Your task to perform on an android device: Go to internet settings Image 0: 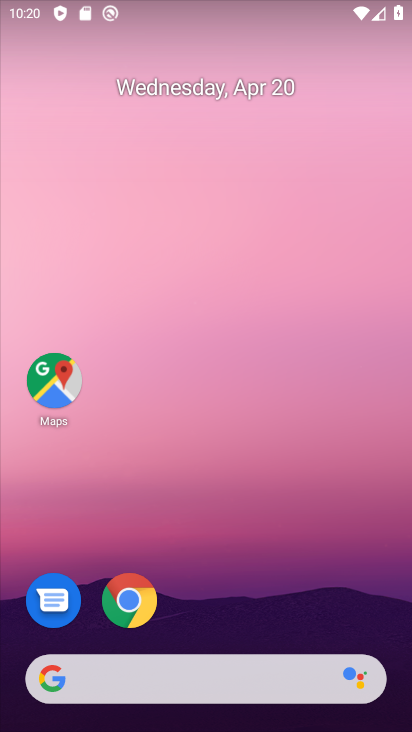
Step 0: drag from (331, 578) to (376, 90)
Your task to perform on an android device: Go to internet settings Image 1: 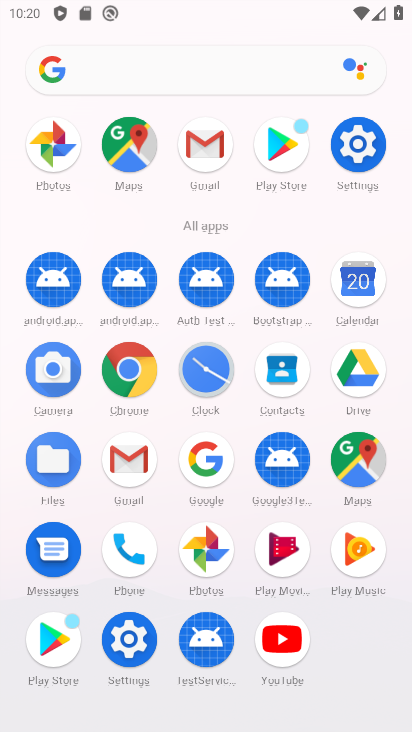
Step 1: click (358, 139)
Your task to perform on an android device: Go to internet settings Image 2: 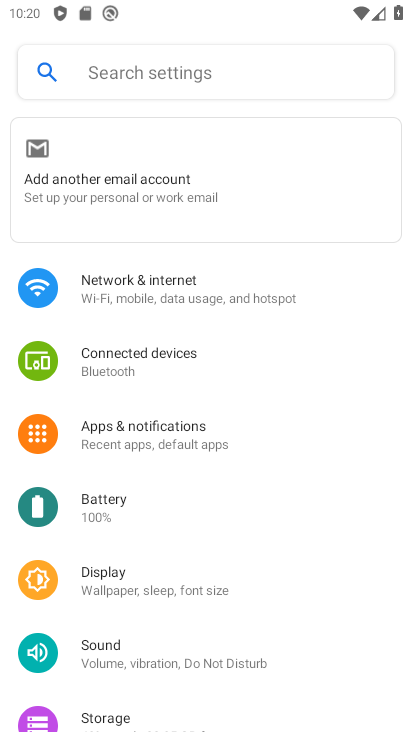
Step 2: click (212, 279)
Your task to perform on an android device: Go to internet settings Image 3: 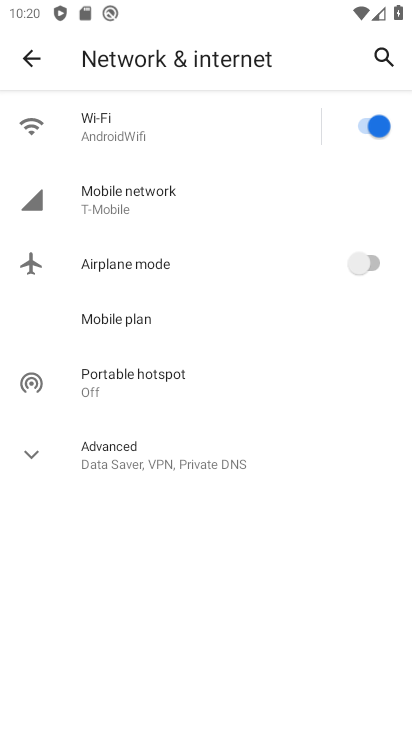
Step 3: task complete